Your task to perform on an android device: Add "acer nitro" to the cart on newegg Image 0: 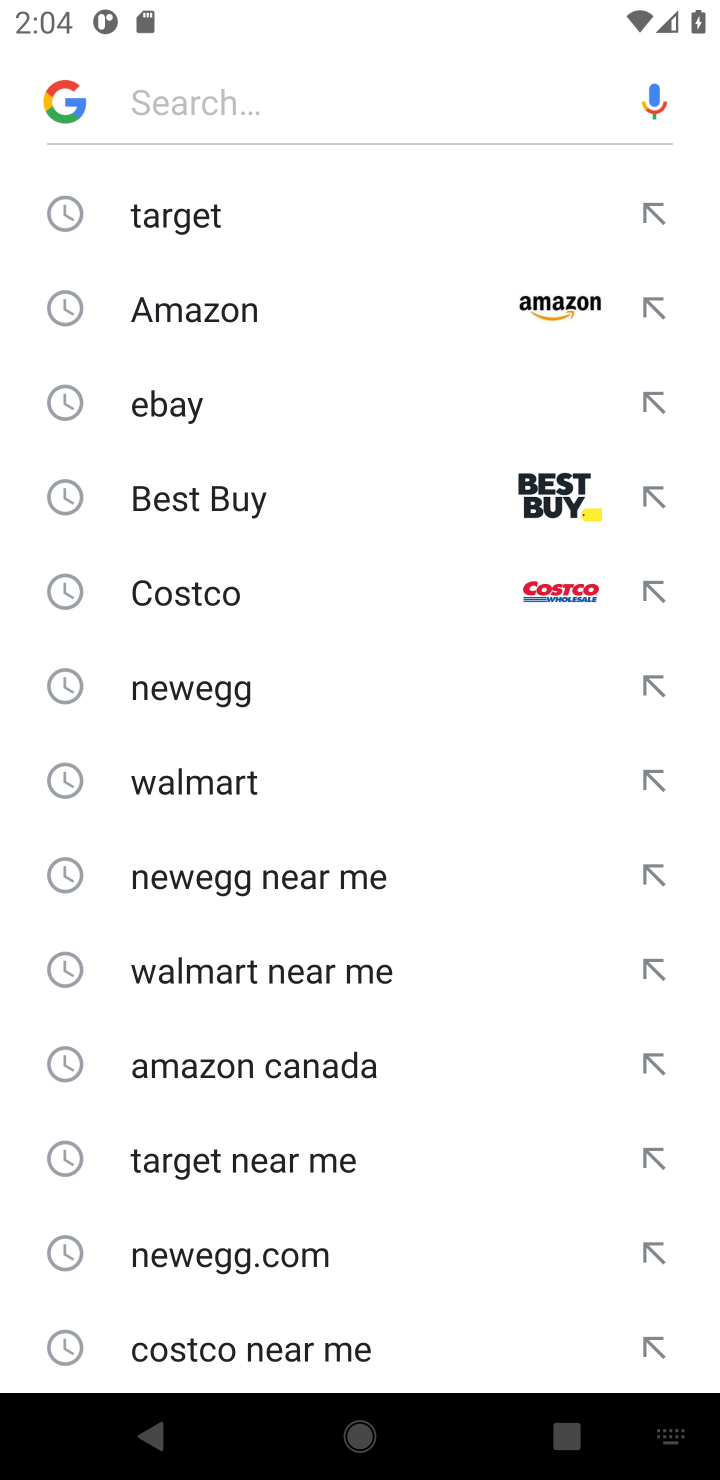
Step 0: press home button
Your task to perform on an android device: Add "acer nitro" to the cart on newegg Image 1: 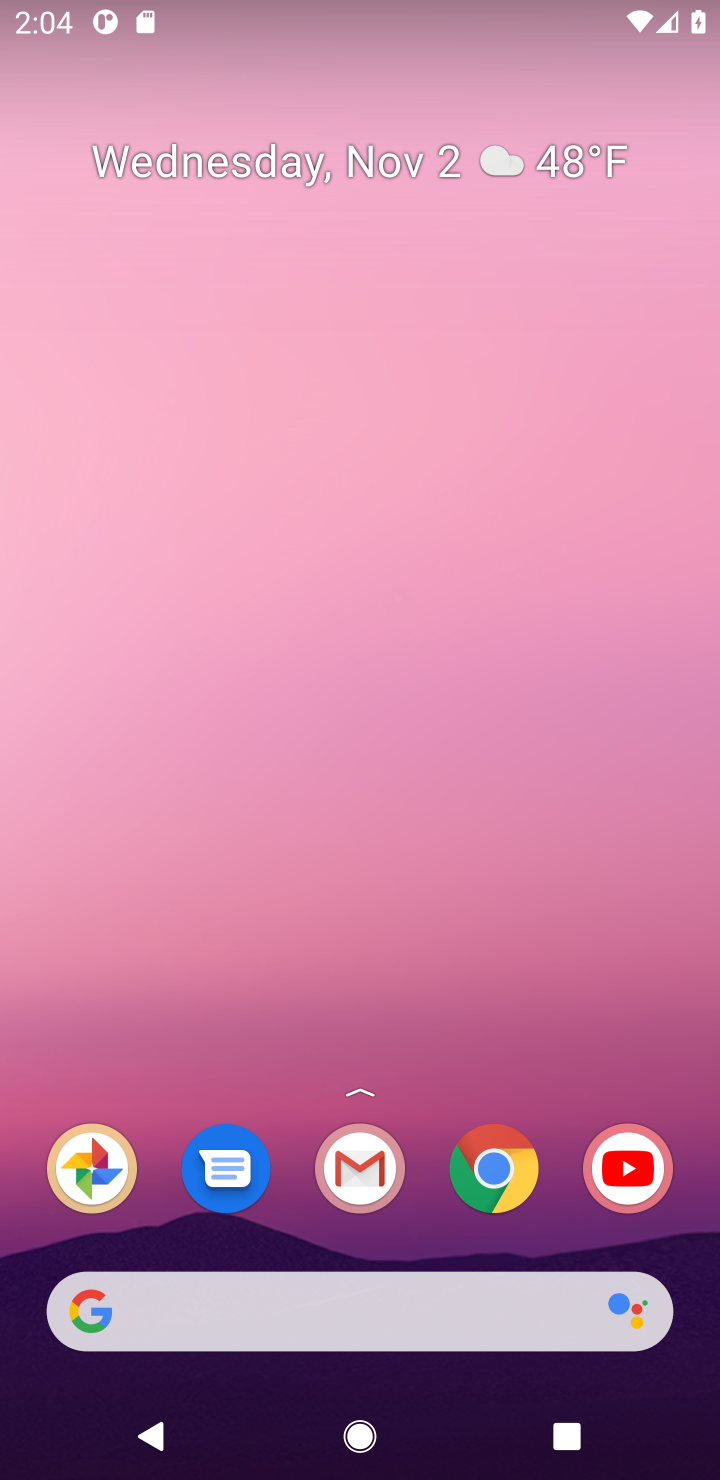
Step 1: click (348, 1318)
Your task to perform on an android device: Add "acer nitro" to the cart on newegg Image 2: 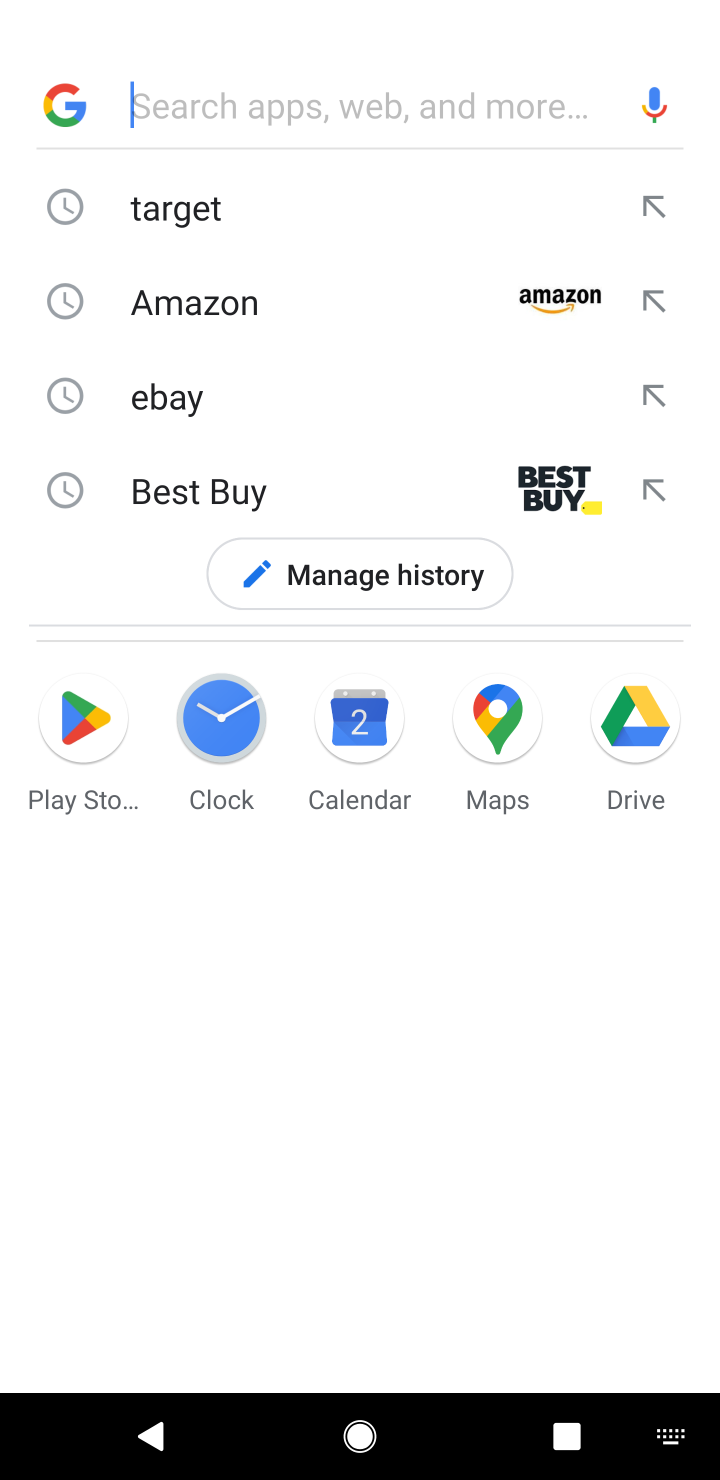
Step 2: type "acer nitro"
Your task to perform on an android device: Add "acer nitro" to the cart on newegg Image 3: 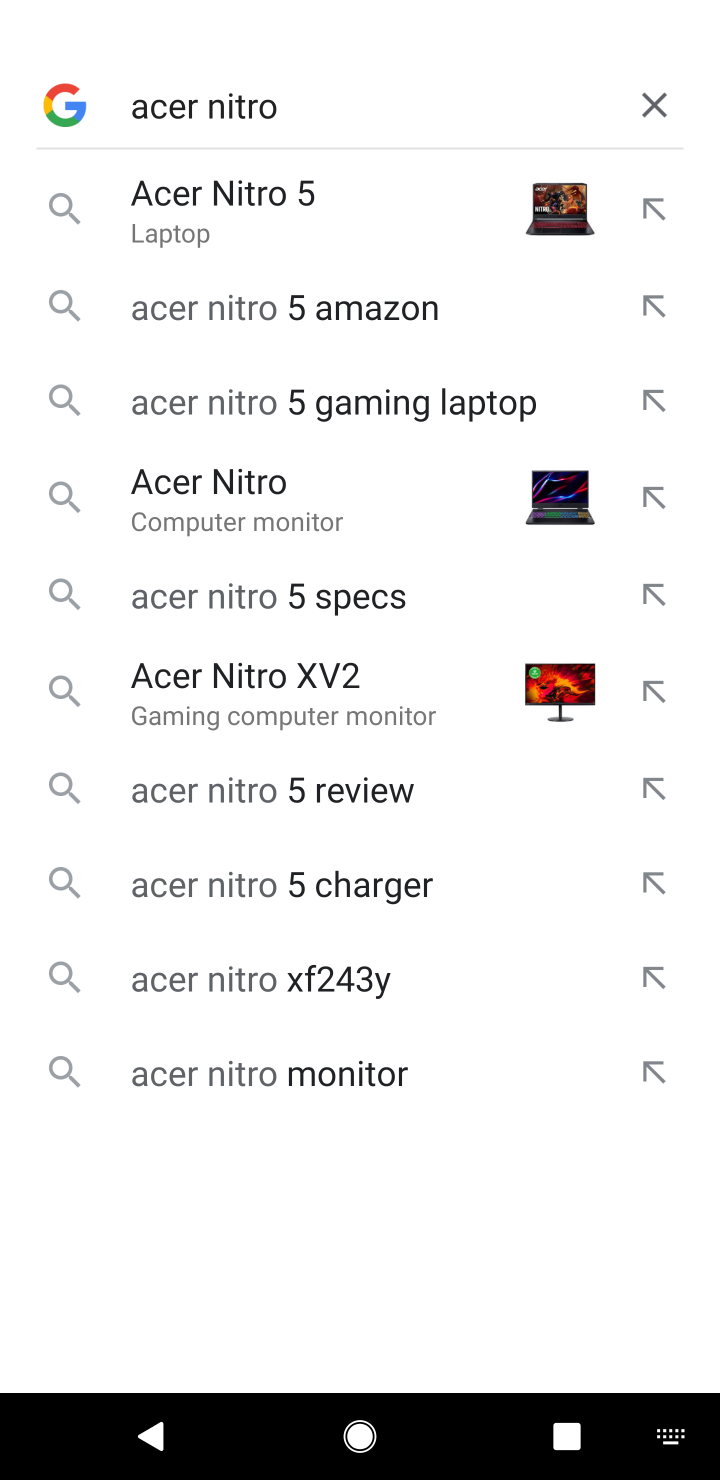
Step 3: click (637, 96)
Your task to perform on an android device: Add "acer nitro" to the cart on newegg Image 4: 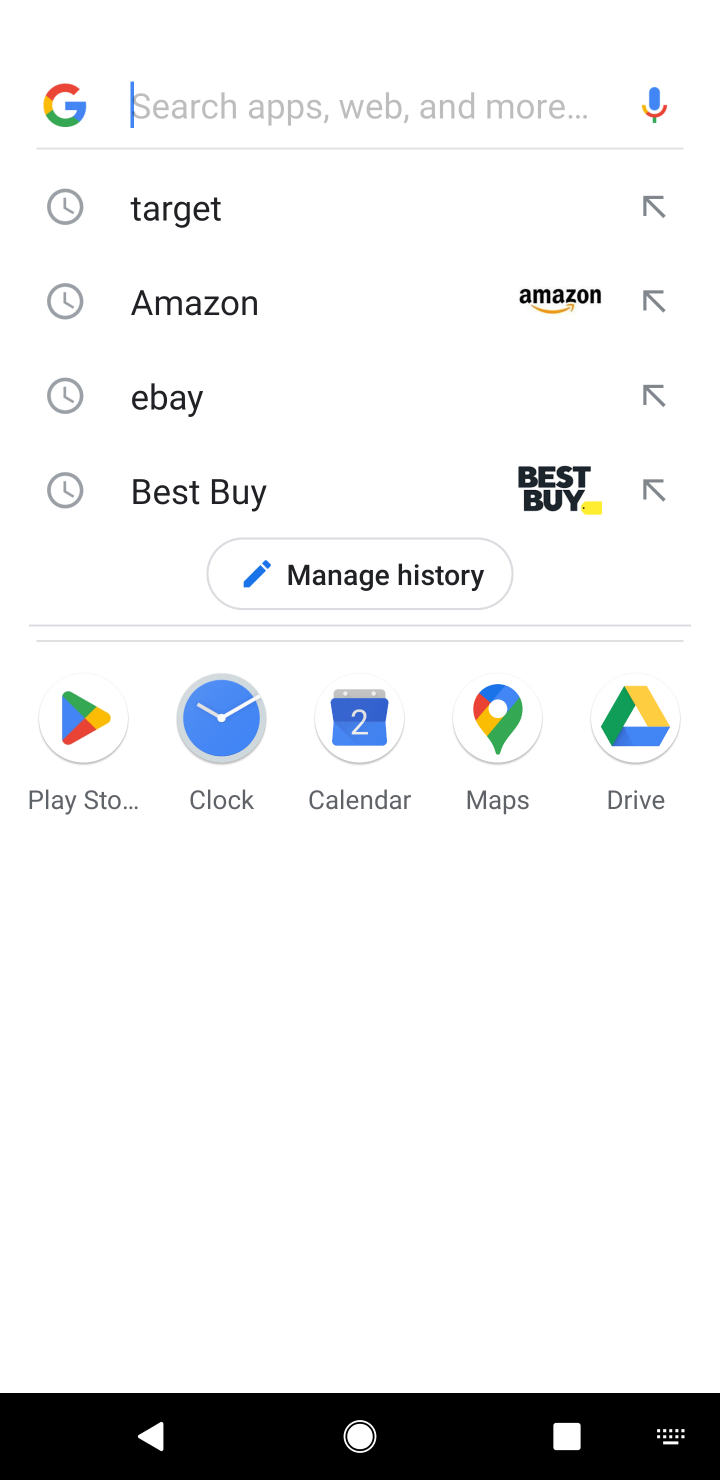
Step 4: type "newegg"
Your task to perform on an android device: Add "acer nitro" to the cart on newegg Image 5: 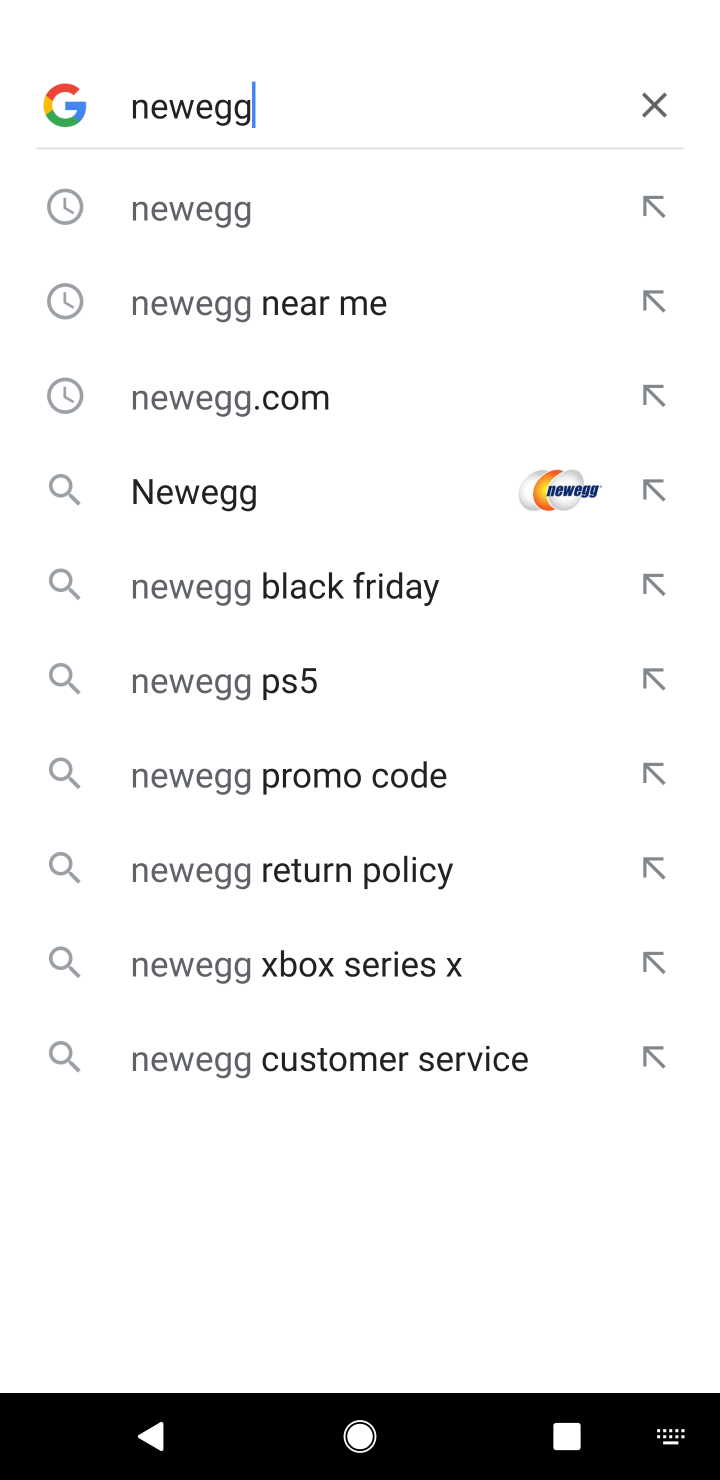
Step 5: click (193, 196)
Your task to perform on an android device: Add "acer nitro" to the cart on newegg Image 6: 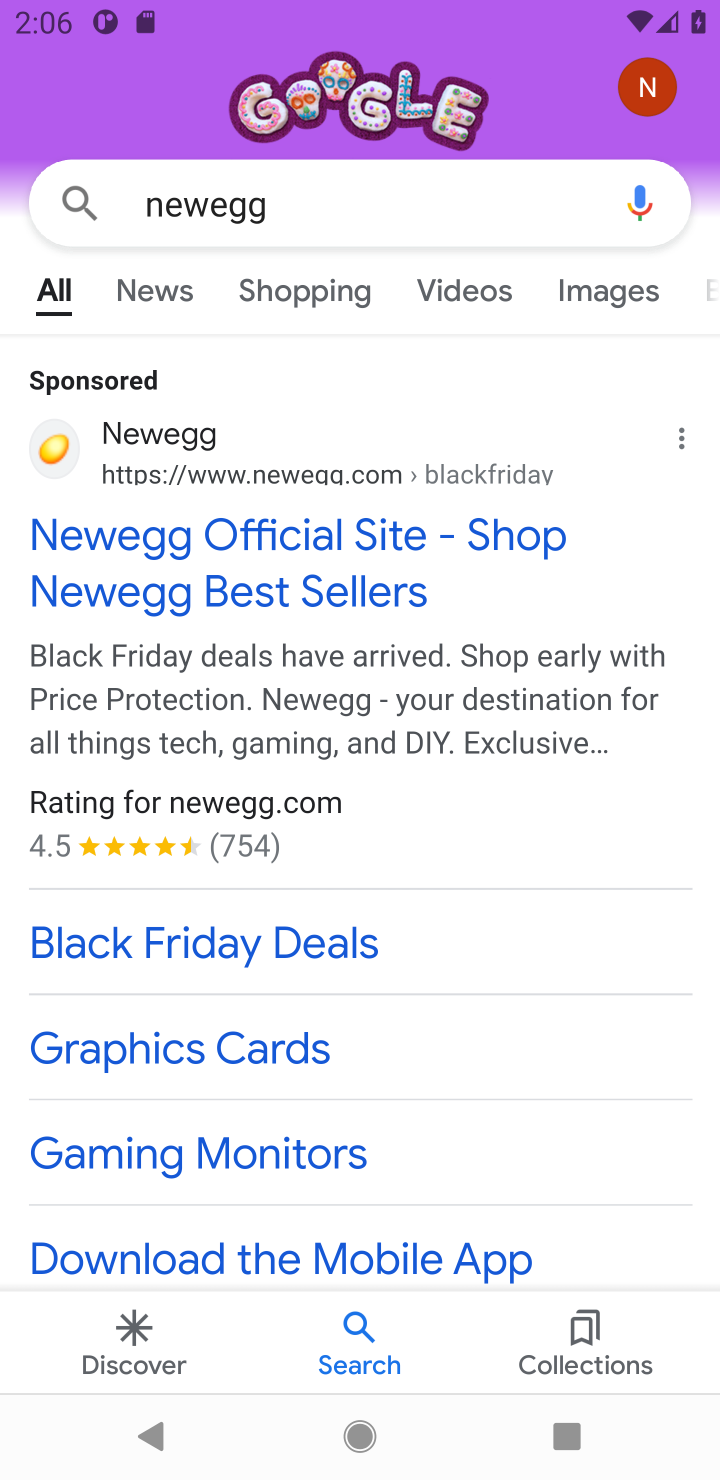
Step 6: click (170, 549)
Your task to perform on an android device: Add "acer nitro" to the cart on newegg Image 7: 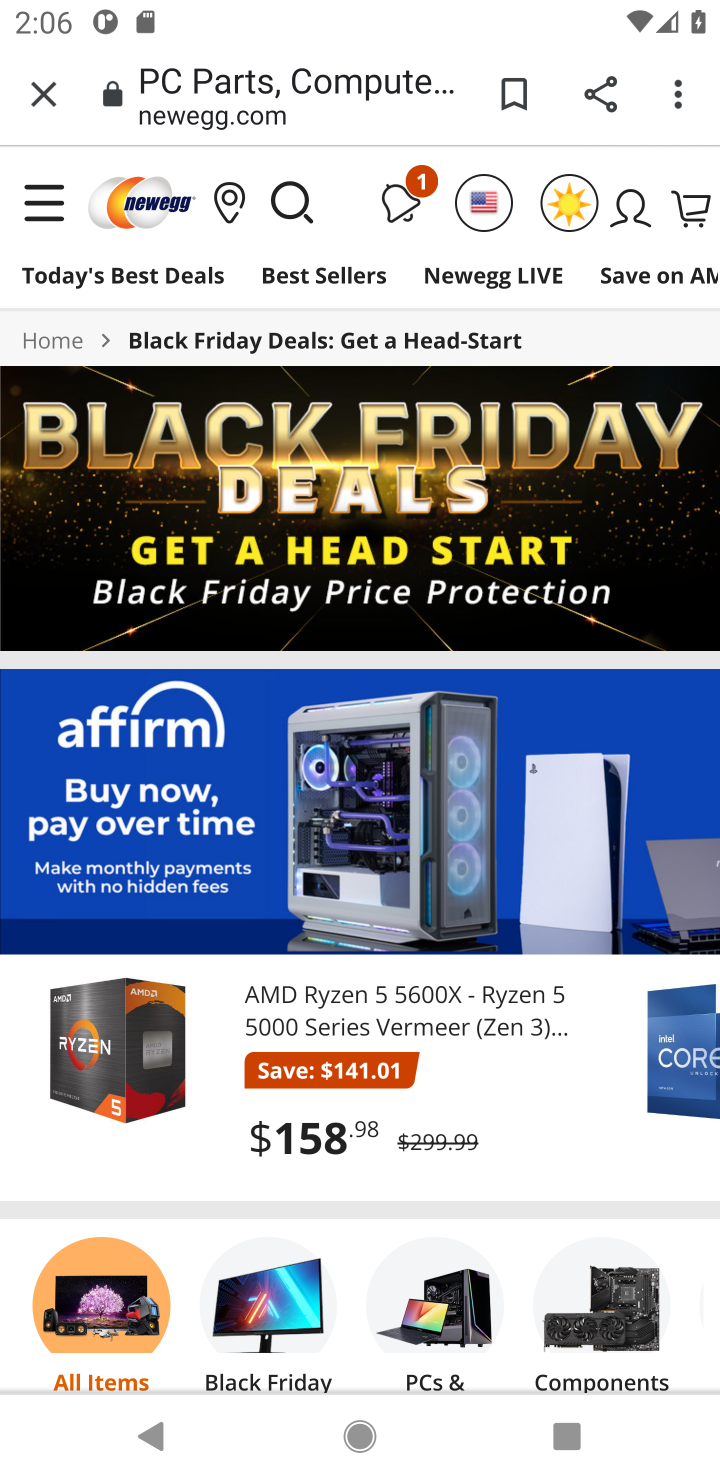
Step 7: click (287, 201)
Your task to perform on an android device: Add "acer nitro" to the cart on newegg Image 8: 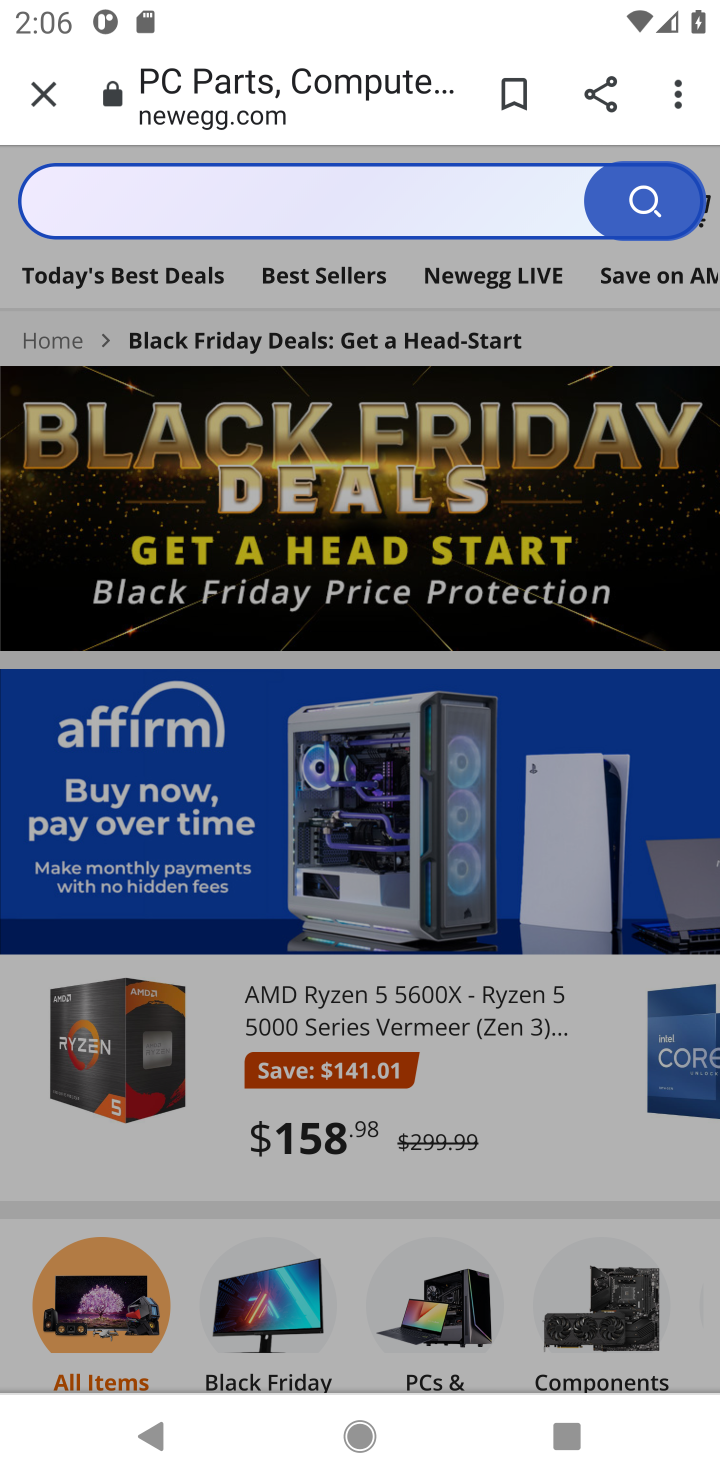
Step 8: click (287, 201)
Your task to perform on an android device: Add "acer nitro" to the cart on newegg Image 9: 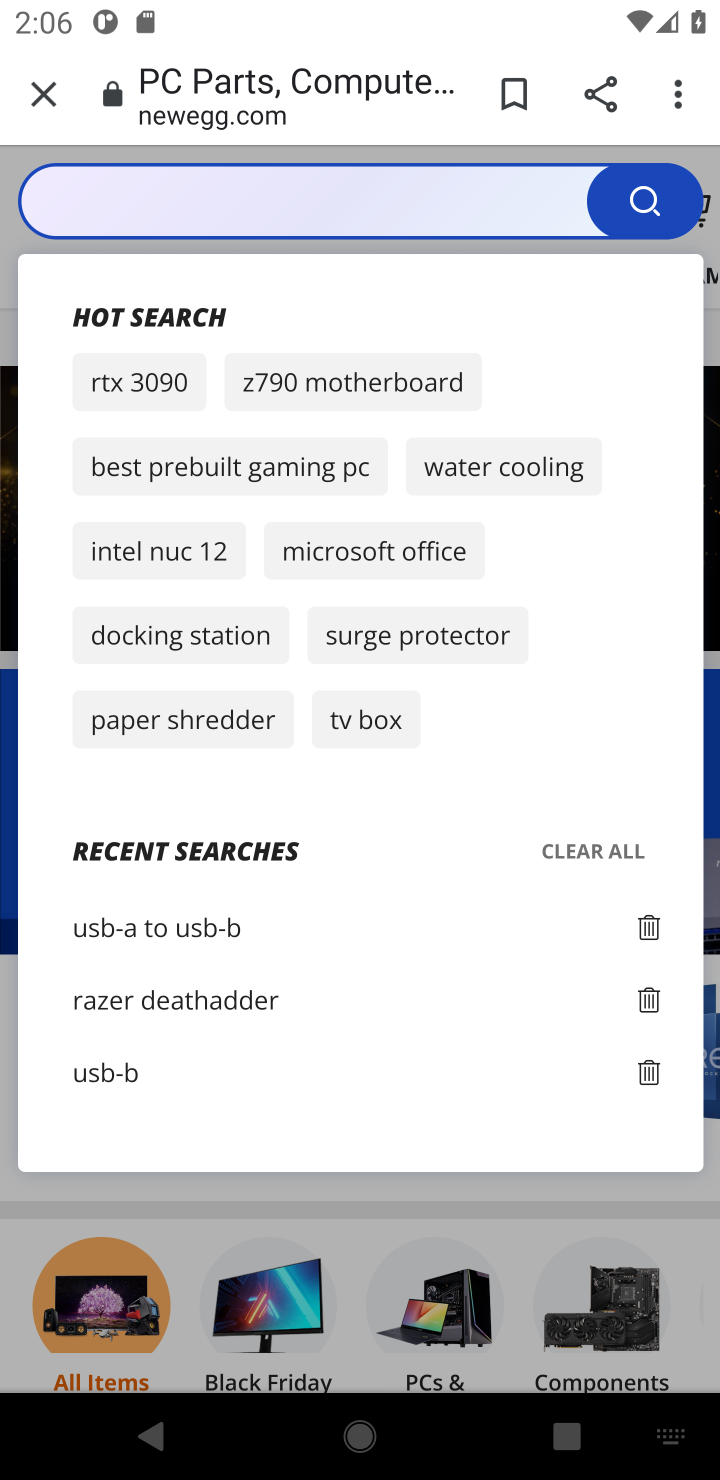
Step 9: type "acer nitro"
Your task to perform on an android device: Add "acer nitro" to the cart on newegg Image 10: 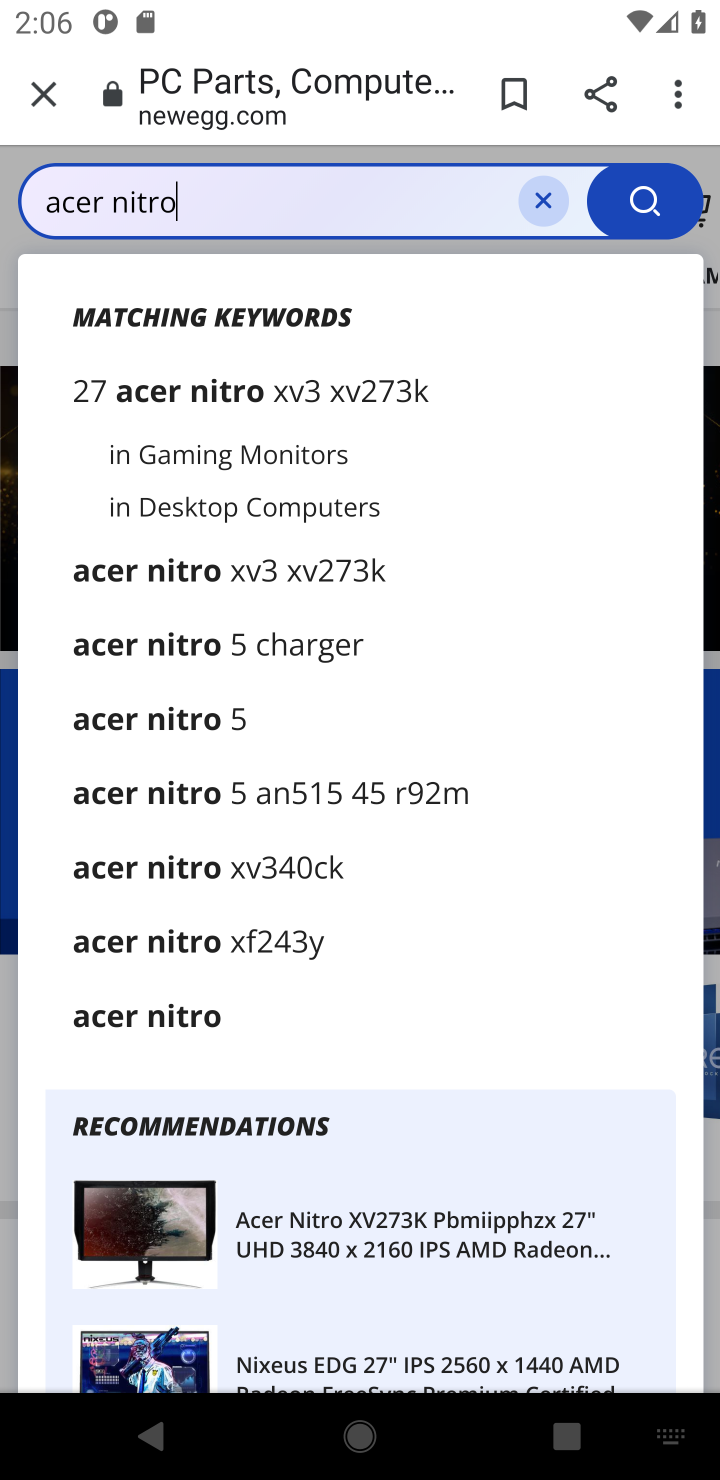
Step 10: click (642, 214)
Your task to perform on an android device: Add "acer nitro" to the cart on newegg Image 11: 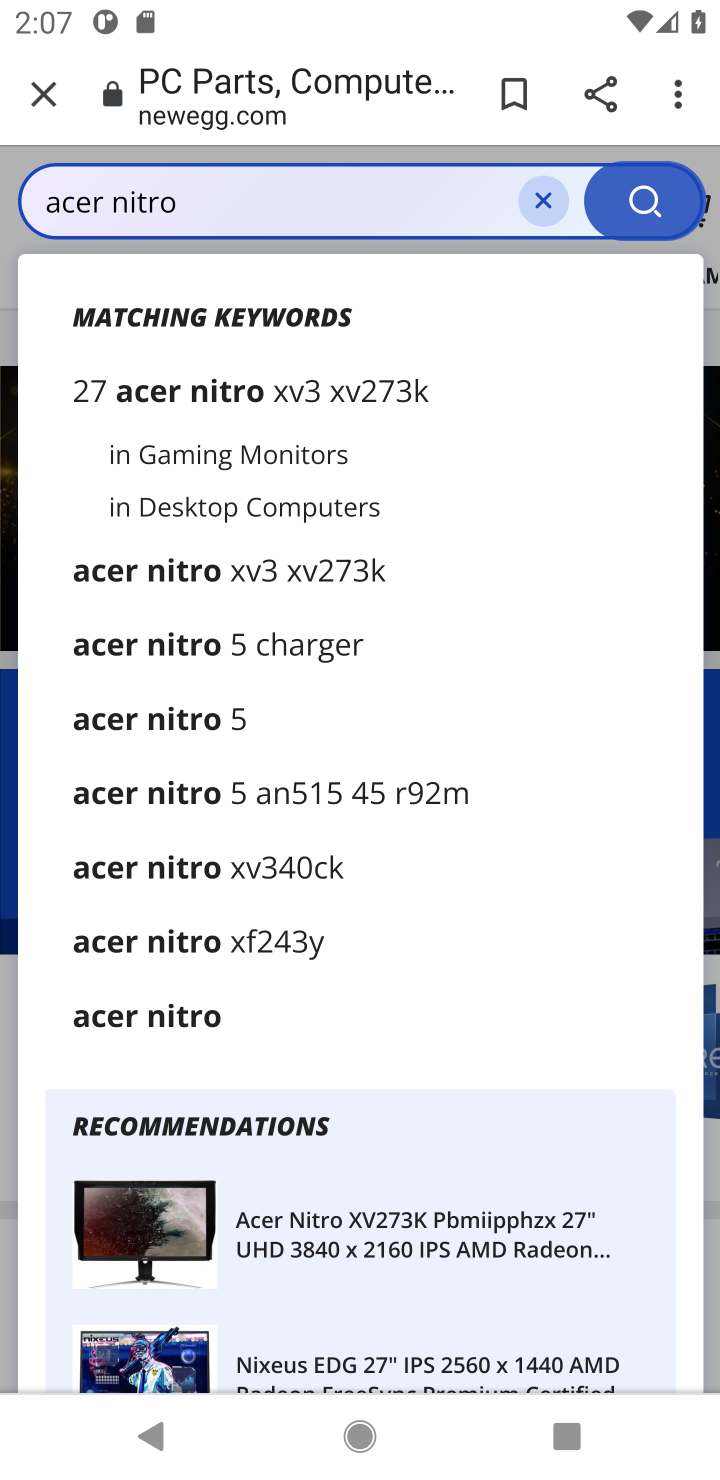
Step 11: click (161, 1016)
Your task to perform on an android device: Add "acer nitro" to the cart on newegg Image 12: 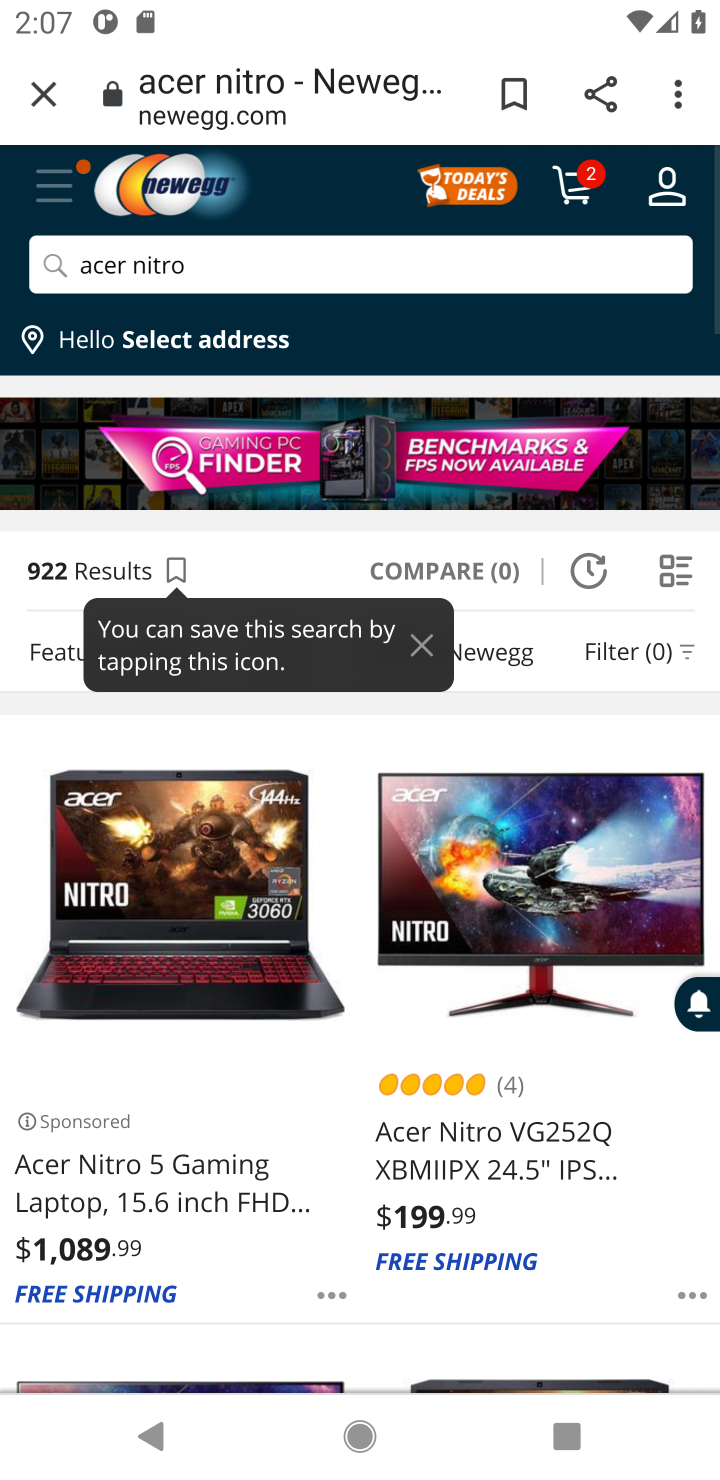
Step 12: click (130, 1183)
Your task to perform on an android device: Add "acer nitro" to the cart on newegg Image 13: 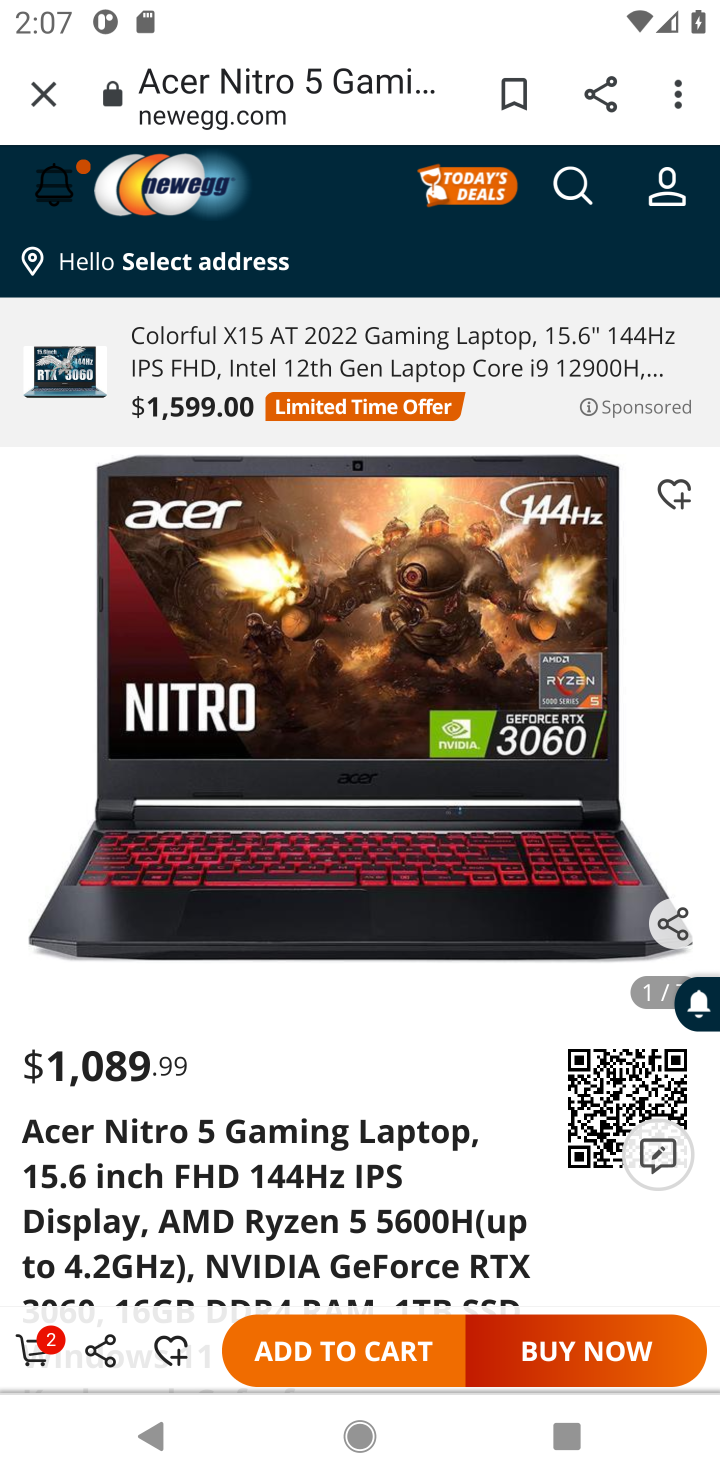
Step 13: click (314, 1370)
Your task to perform on an android device: Add "acer nitro" to the cart on newegg Image 14: 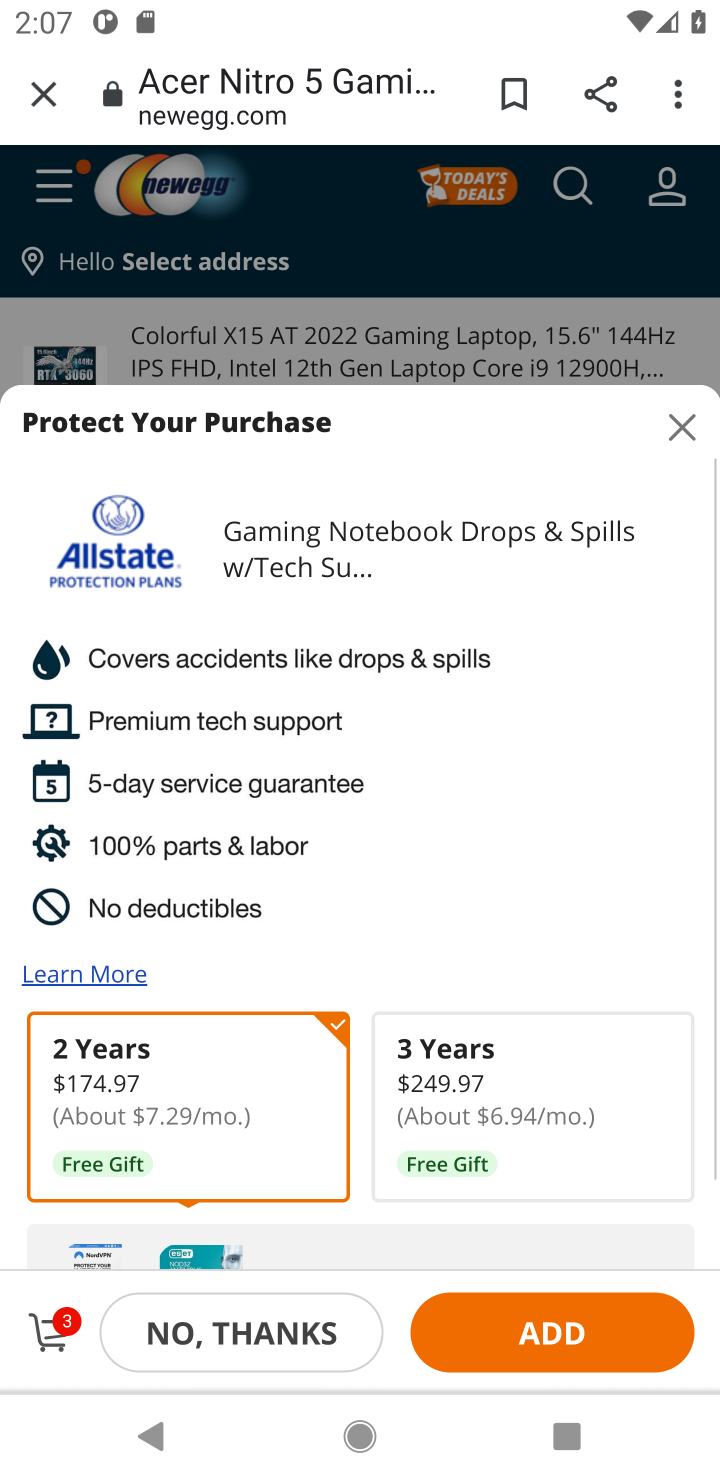
Step 14: click (217, 1325)
Your task to perform on an android device: Add "acer nitro" to the cart on newegg Image 15: 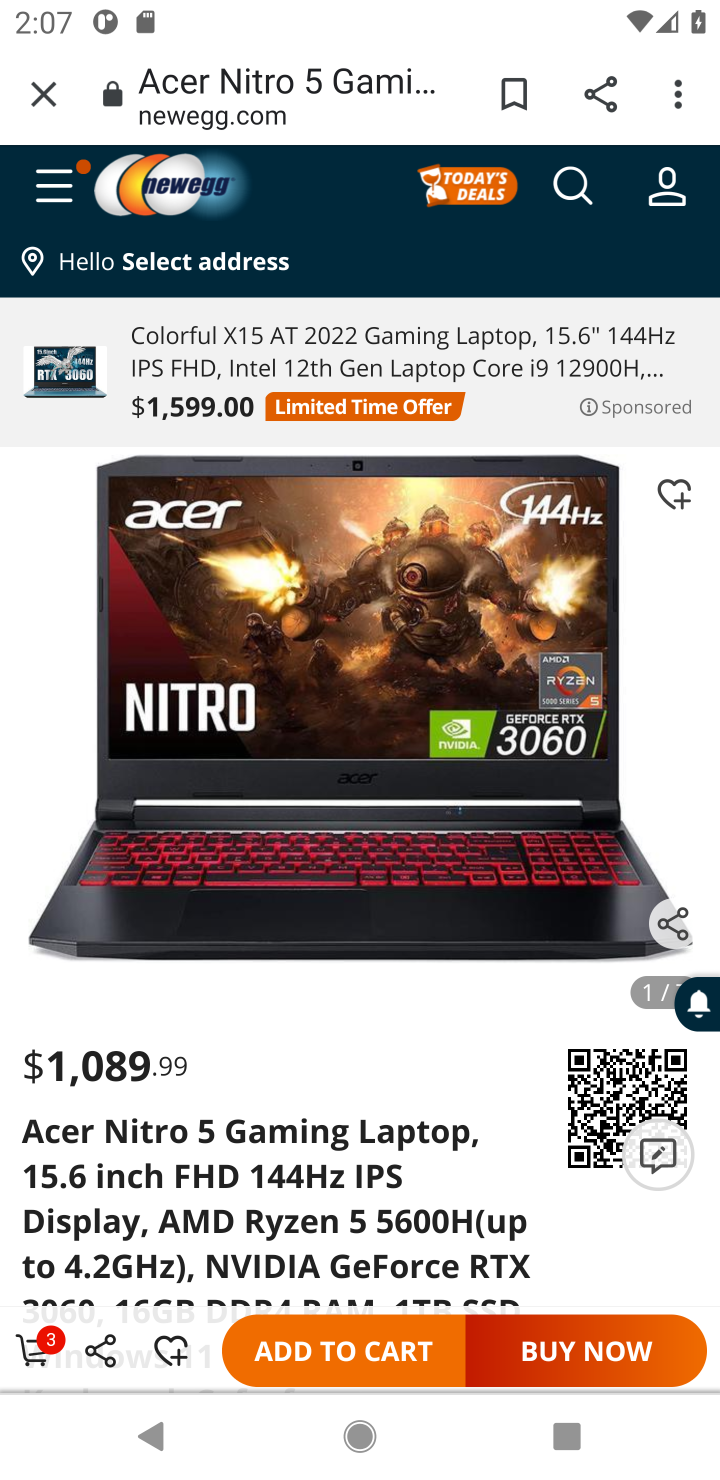
Step 15: task complete